Your task to perform on an android device: toggle data saver in the chrome app Image 0: 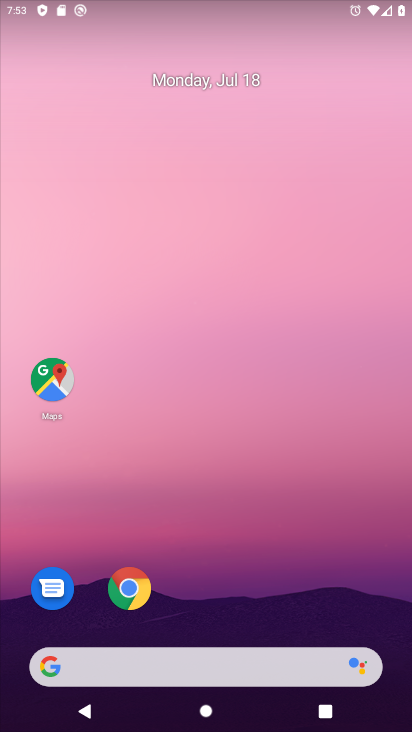
Step 0: drag from (218, 625) to (239, 20)
Your task to perform on an android device: toggle data saver in the chrome app Image 1: 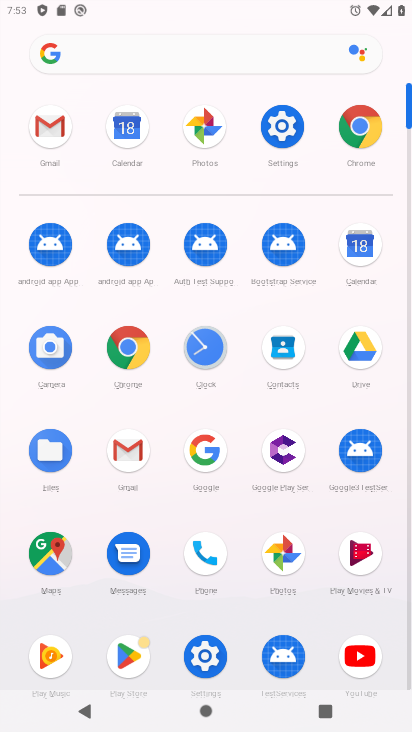
Step 1: click (123, 360)
Your task to perform on an android device: toggle data saver in the chrome app Image 2: 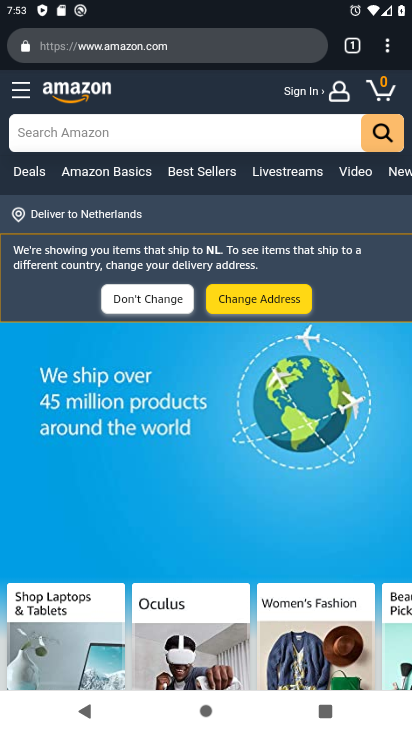
Step 2: click (389, 47)
Your task to perform on an android device: toggle data saver in the chrome app Image 3: 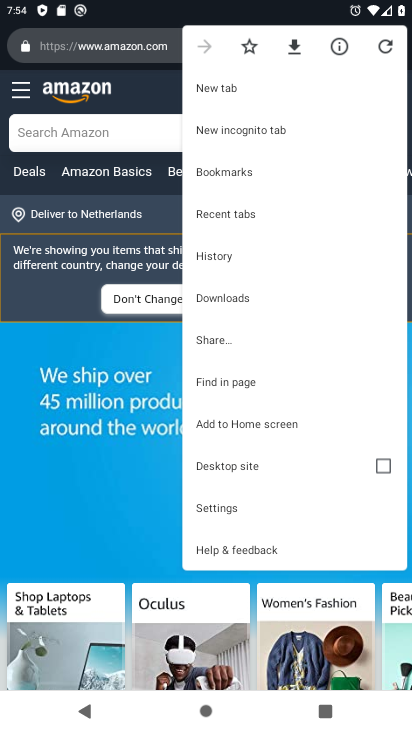
Step 3: click (228, 503)
Your task to perform on an android device: toggle data saver in the chrome app Image 4: 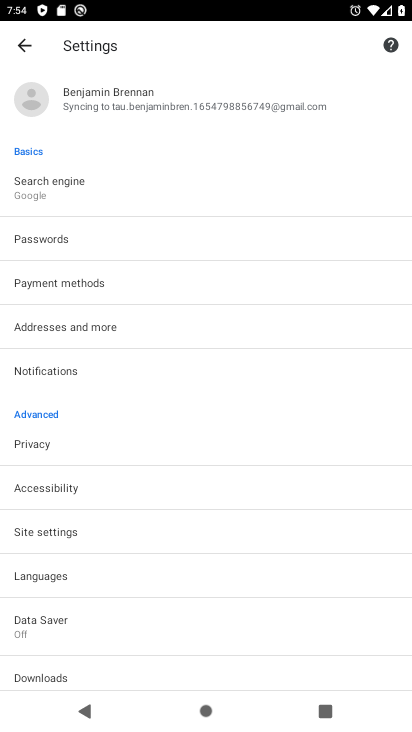
Step 4: click (43, 628)
Your task to perform on an android device: toggle data saver in the chrome app Image 5: 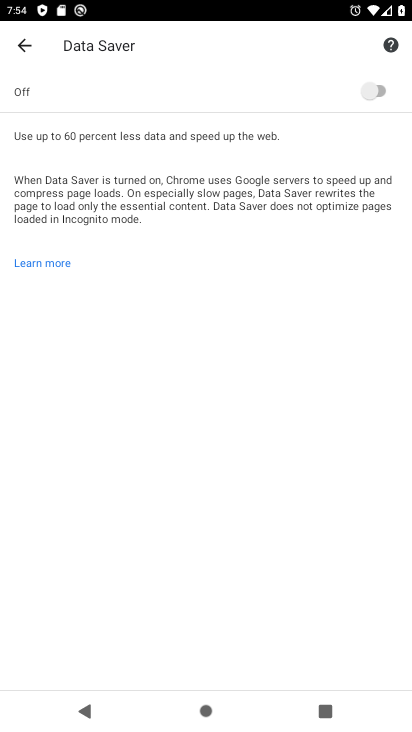
Step 5: click (346, 101)
Your task to perform on an android device: toggle data saver in the chrome app Image 6: 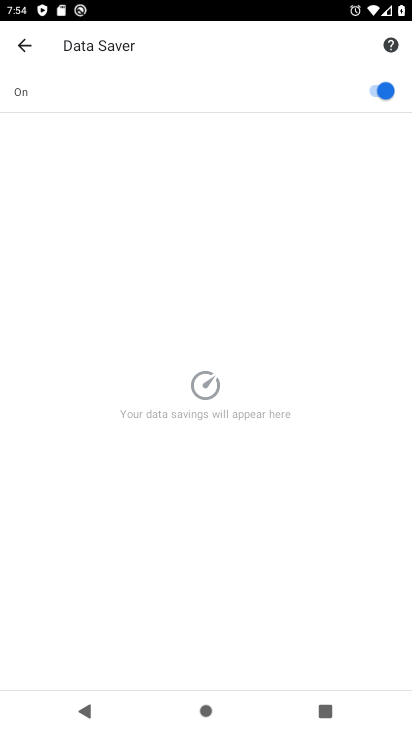
Step 6: task complete